Your task to perform on an android device: Show me productivity apps on the Play Store Image 0: 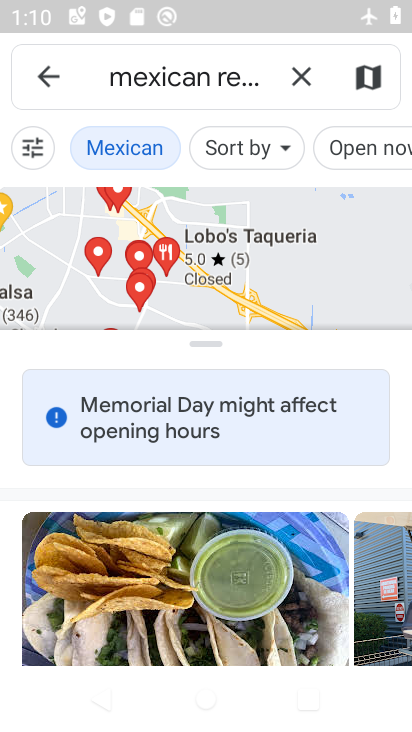
Step 0: press home button
Your task to perform on an android device: Show me productivity apps on the Play Store Image 1: 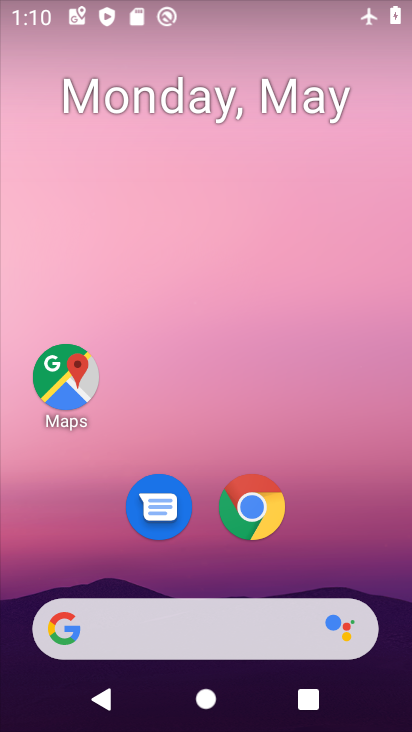
Step 1: drag from (229, 724) to (221, 138)
Your task to perform on an android device: Show me productivity apps on the Play Store Image 2: 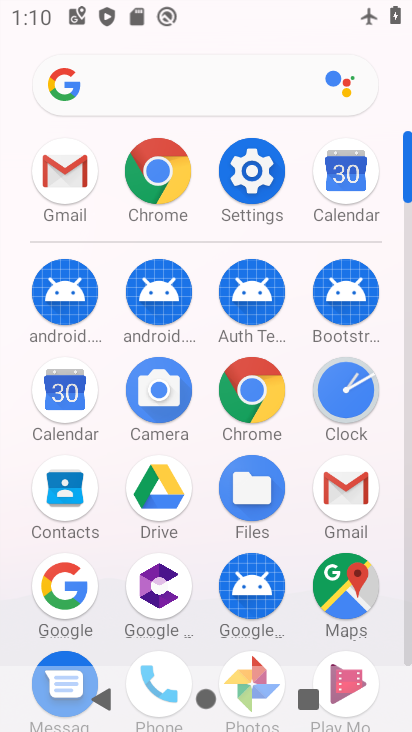
Step 2: drag from (202, 635) to (200, 221)
Your task to perform on an android device: Show me productivity apps on the Play Store Image 3: 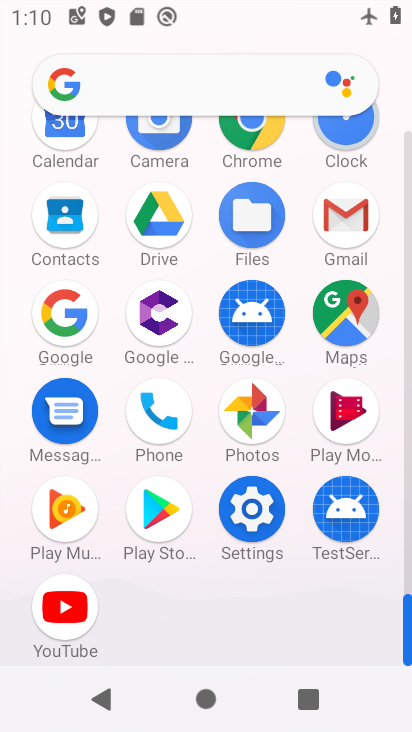
Step 3: click (161, 524)
Your task to perform on an android device: Show me productivity apps on the Play Store Image 4: 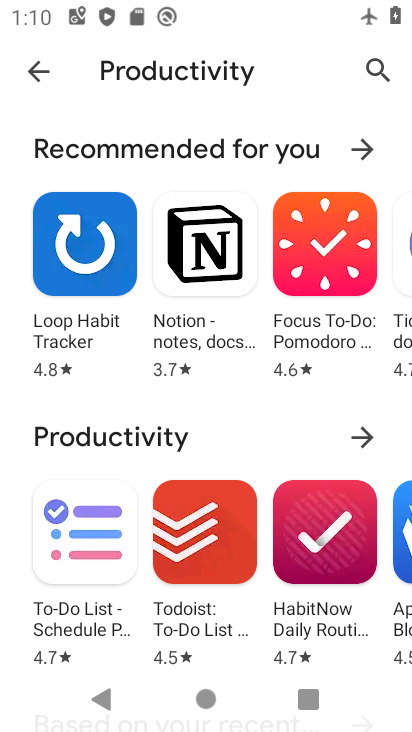
Step 4: task complete